Your task to perform on an android device: What's the weather going to be this weekend? Image 0: 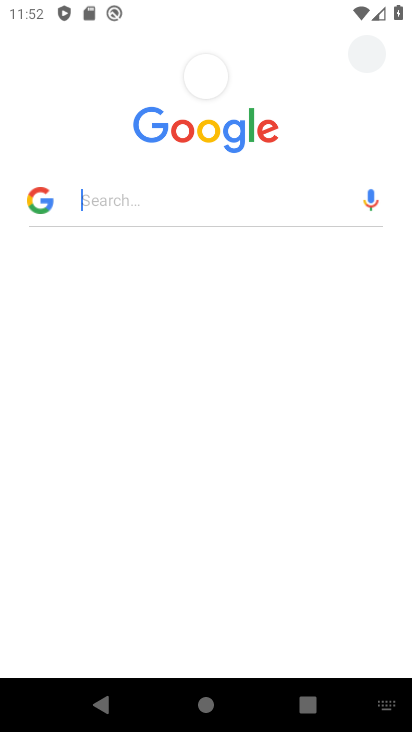
Step 0: press home button
Your task to perform on an android device: What's the weather going to be this weekend? Image 1: 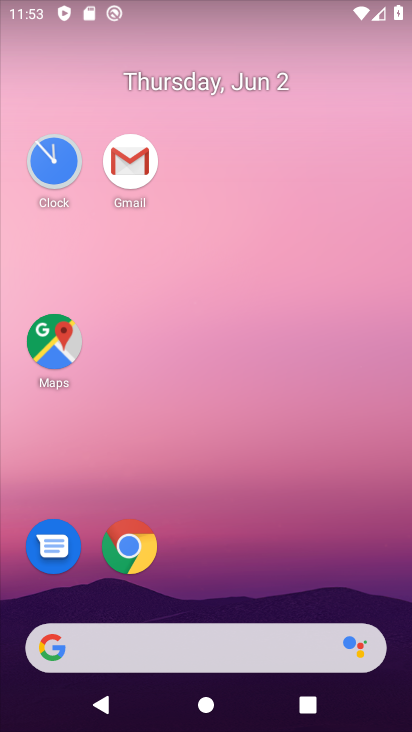
Step 1: drag from (313, 547) to (289, 94)
Your task to perform on an android device: What's the weather going to be this weekend? Image 2: 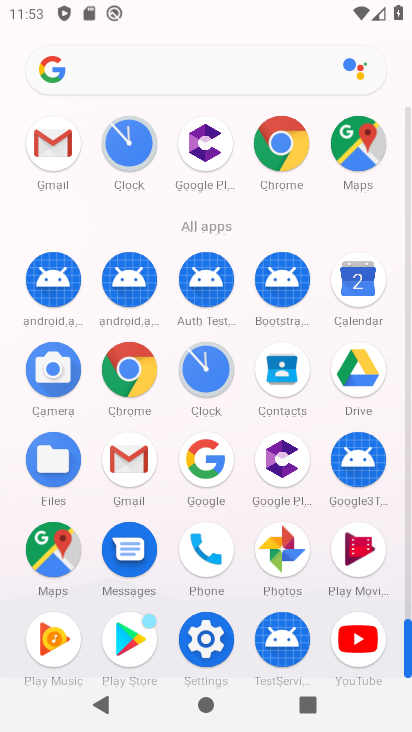
Step 2: drag from (246, 523) to (270, 265)
Your task to perform on an android device: What's the weather going to be this weekend? Image 3: 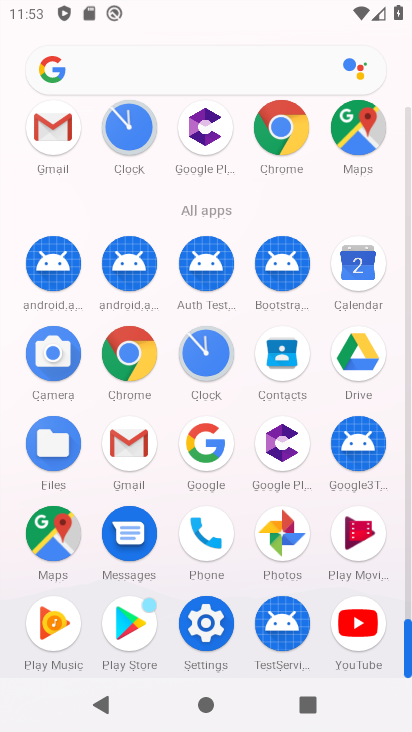
Step 3: drag from (213, 456) to (215, 208)
Your task to perform on an android device: What's the weather going to be this weekend? Image 4: 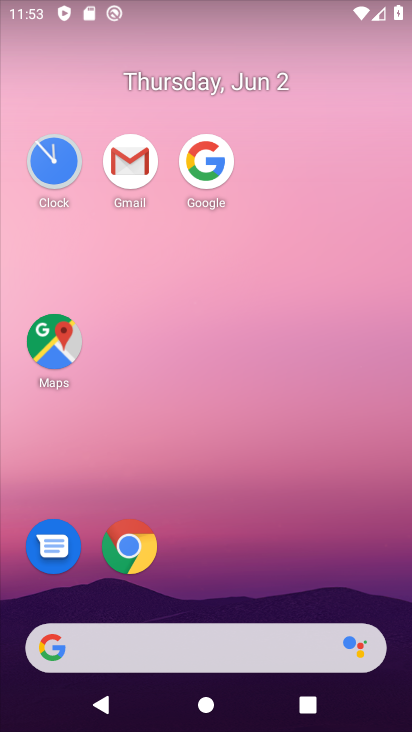
Step 4: click (212, 163)
Your task to perform on an android device: What's the weather going to be this weekend? Image 5: 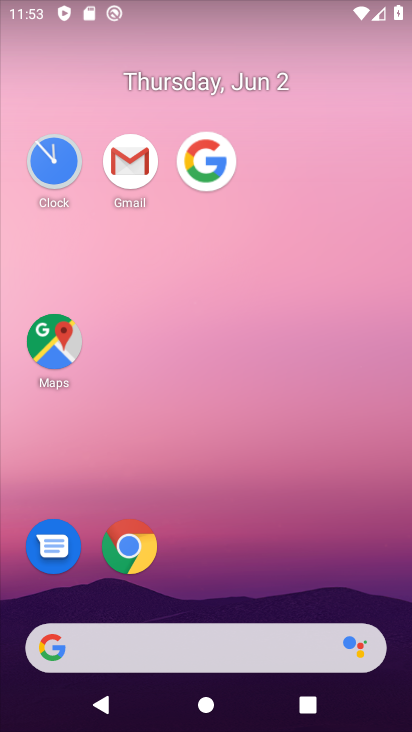
Step 5: click (217, 172)
Your task to perform on an android device: What's the weather going to be this weekend? Image 6: 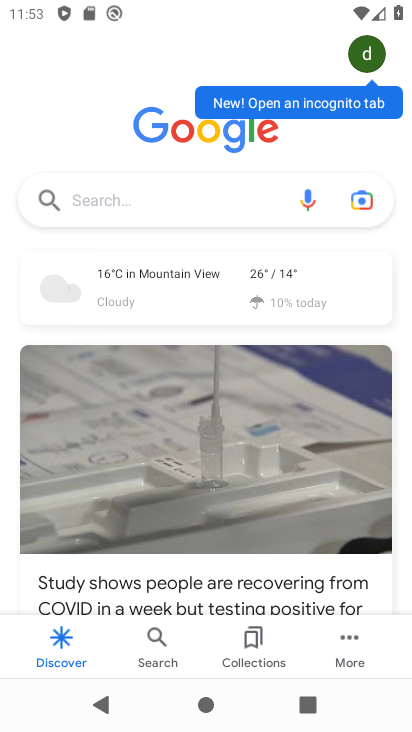
Step 6: click (121, 278)
Your task to perform on an android device: What's the weather going to be this weekend? Image 7: 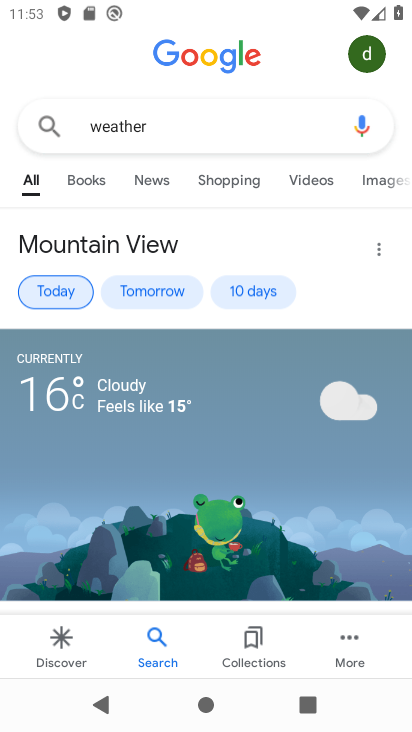
Step 7: click (249, 286)
Your task to perform on an android device: What's the weather going to be this weekend? Image 8: 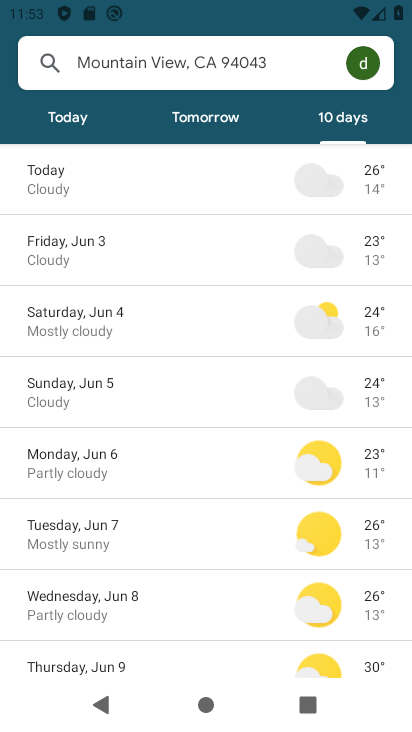
Step 8: click (126, 330)
Your task to perform on an android device: What's the weather going to be this weekend? Image 9: 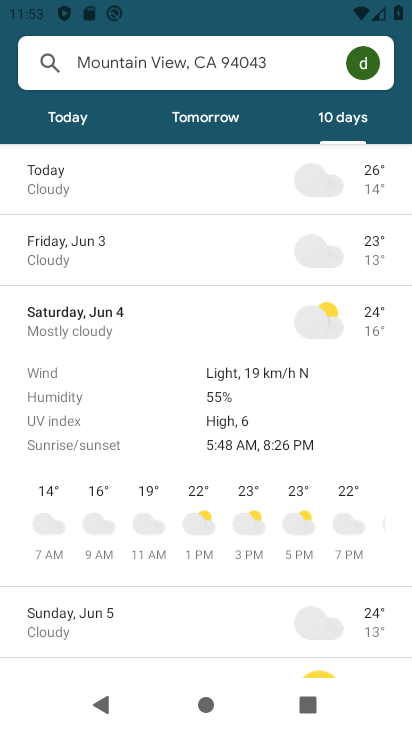
Step 9: task complete